Your task to perform on an android device: check data usage Image 0: 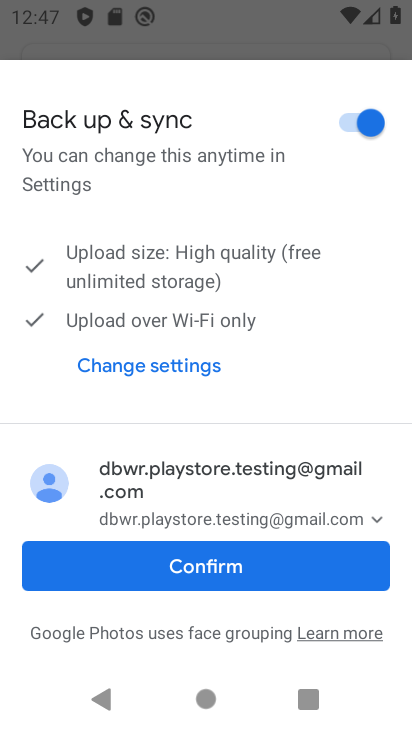
Step 0: press home button
Your task to perform on an android device: check data usage Image 1: 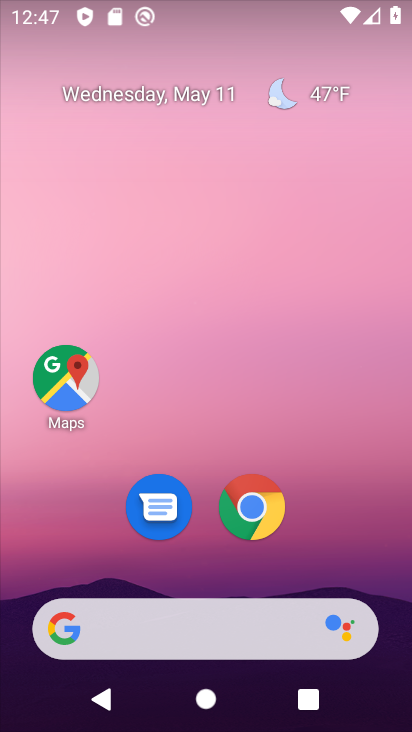
Step 1: drag from (329, 512) to (189, 0)
Your task to perform on an android device: check data usage Image 2: 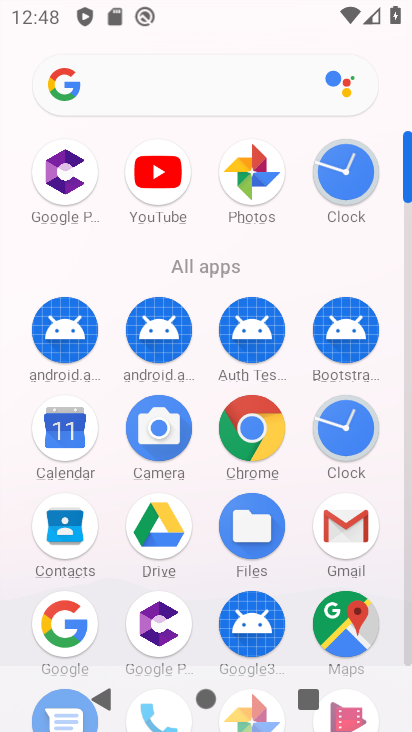
Step 2: drag from (202, 616) to (176, 237)
Your task to perform on an android device: check data usage Image 3: 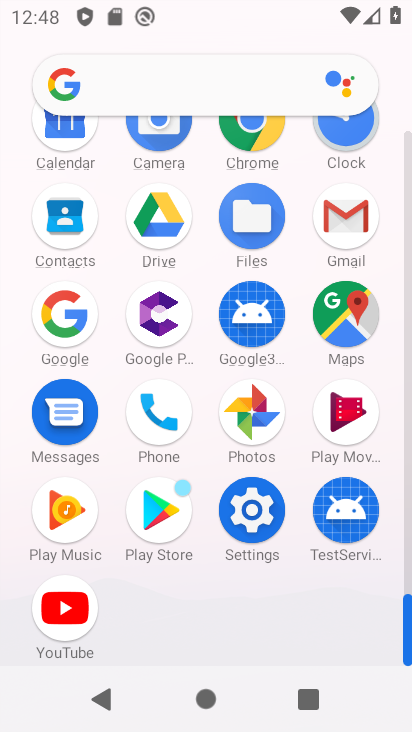
Step 3: click (244, 527)
Your task to perform on an android device: check data usage Image 4: 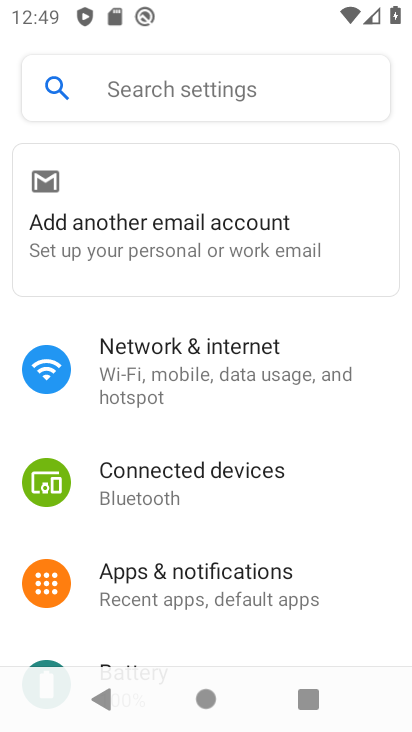
Step 4: drag from (209, 533) to (189, 403)
Your task to perform on an android device: check data usage Image 5: 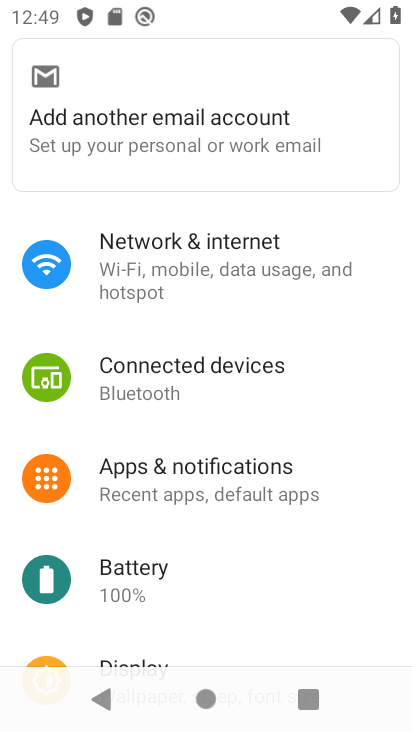
Step 5: click (152, 247)
Your task to perform on an android device: check data usage Image 6: 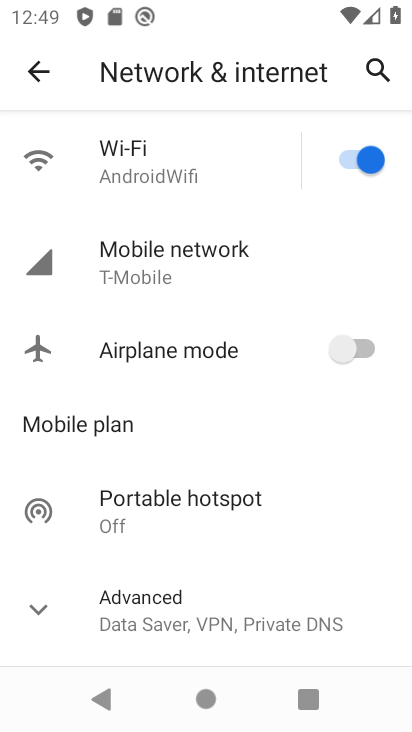
Step 6: drag from (251, 514) to (220, 241)
Your task to perform on an android device: check data usage Image 7: 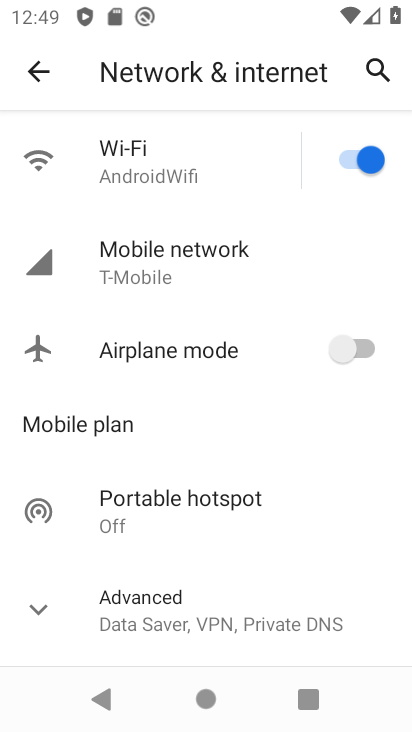
Step 7: drag from (220, 587) to (212, 300)
Your task to perform on an android device: check data usage Image 8: 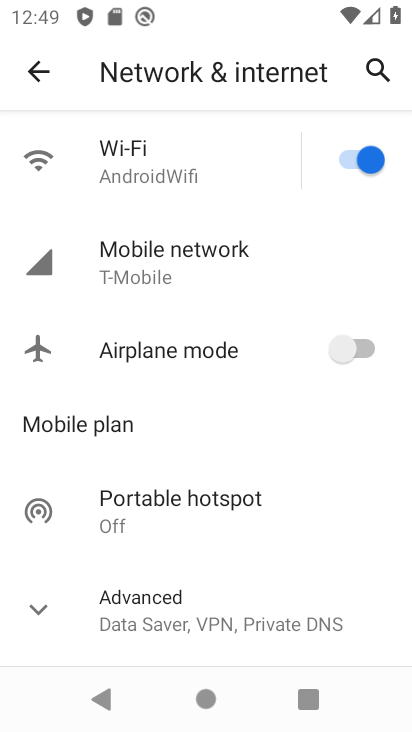
Step 8: click (181, 253)
Your task to perform on an android device: check data usage Image 9: 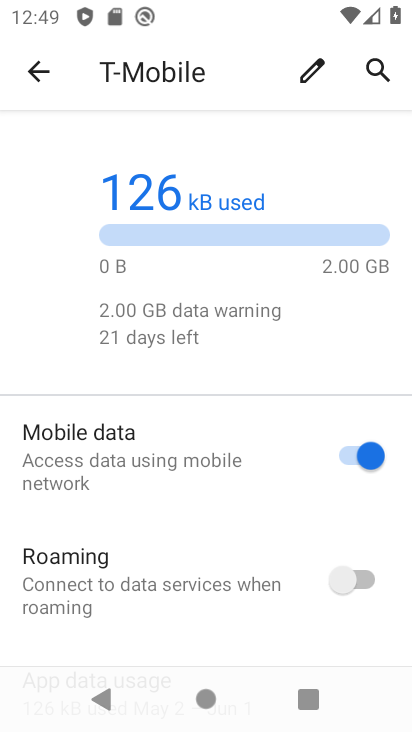
Step 9: task complete